Your task to perform on an android device: Open Google Chrome and click the shortcut for Amazon.com Image 0: 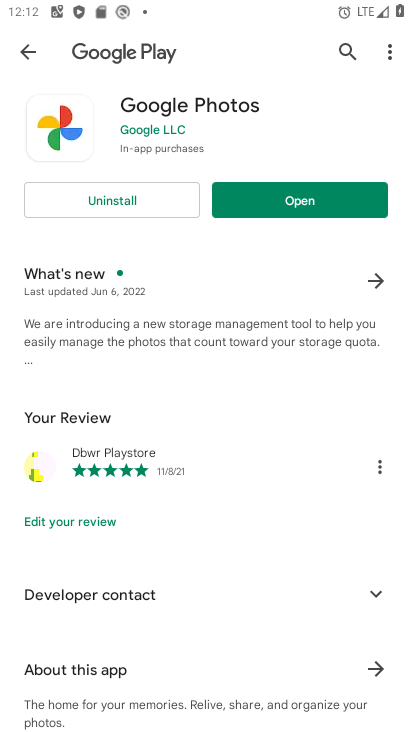
Step 0: press home button
Your task to perform on an android device: Open Google Chrome and click the shortcut for Amazon.com Image 1: 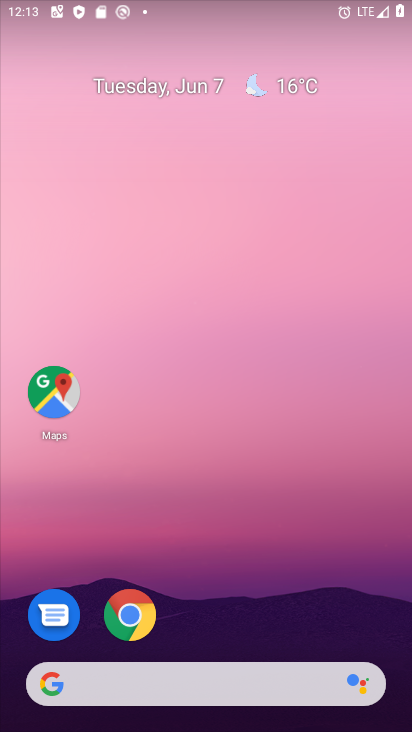
Step 1: click (129, 606)
Your task to perform on an android device: Open Google Chrome and click the shortcut for Amazon.com Image 2: 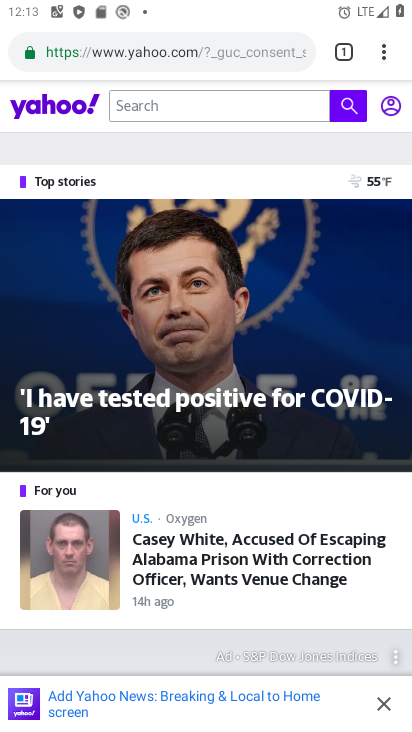
Step 2: click (341, 46)
Your task to perform on an android device: Open Google Chrome and click the shortcut for Amazon.com Image 3: 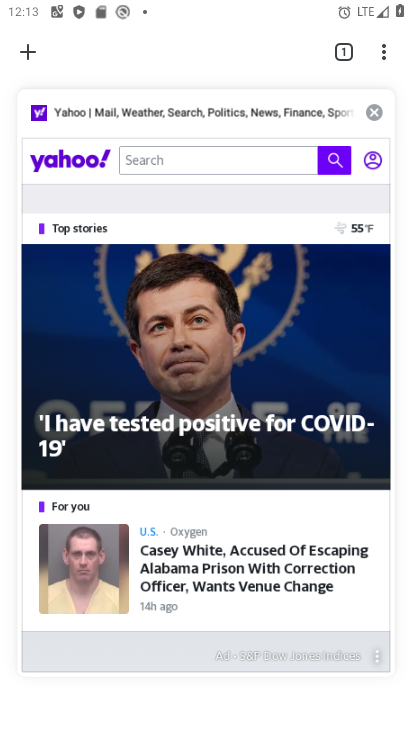
Step 3: click (372, 107)
Your task to perform on an android device: Open Google Chrome and click the shortcut for Amazon.com Image 4: 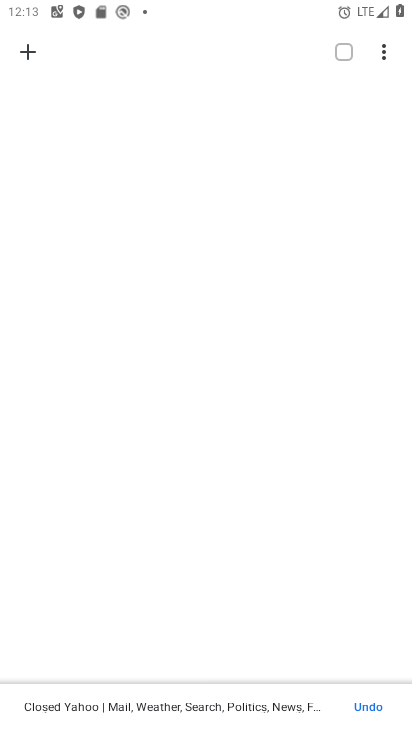
Step 4: click (31, 53)
Your task to perform on an android device: Open Google Chrome and click the shortcut for Amazon.com Image 5: 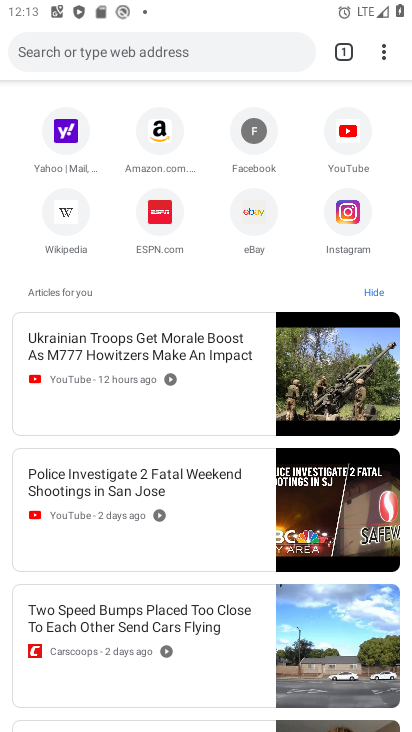
Step 5: click (150, 125)
Your task to perform on an android device: Open Google Chrome and click the shortcut for Amazon.com Image 6: 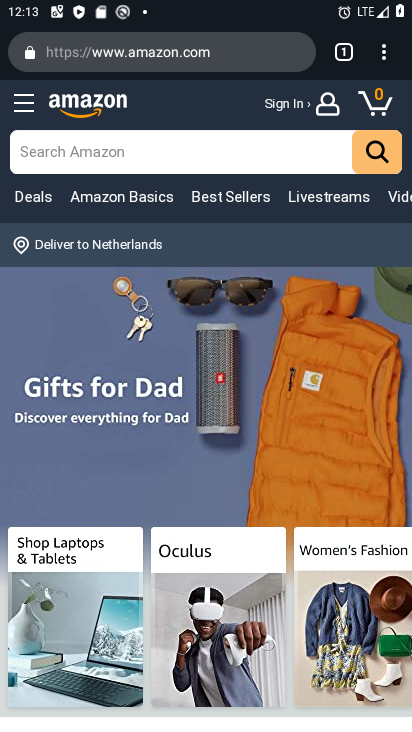
Step 6: task complete